Your task to perform on an android device: turn on airplane mode Image 0: 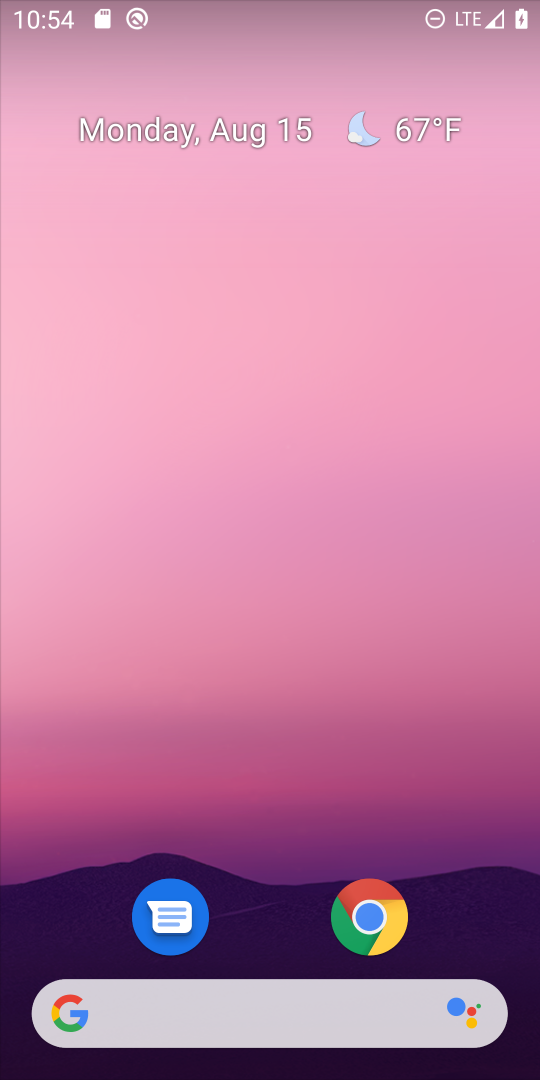
Step 0: drag from (305, 770) to (396, 24)
Your task to perform on an android device: turn on airplane mode Image 1: 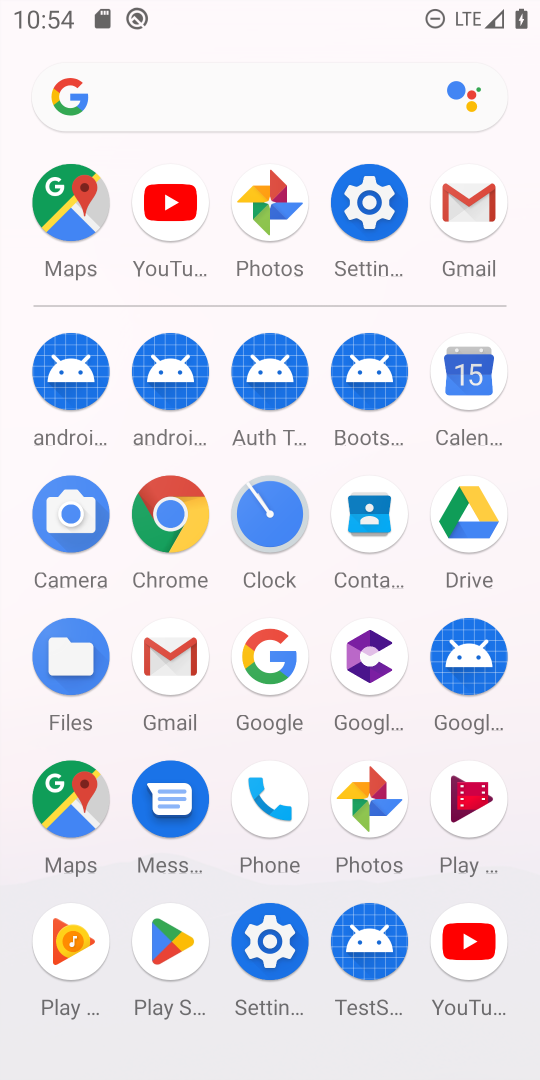
Step 1: click (372, 205)
Your task to perform on an android device: turn on airplane mode Image 2: 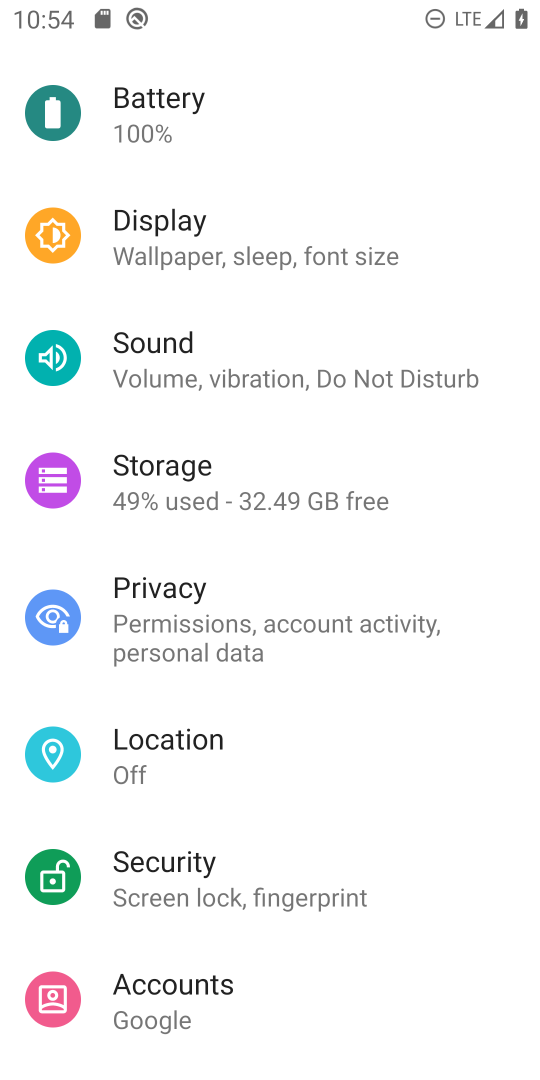
Step 2: drag from (380, 252) to (336, 812)
Your task to perform on an android device: turn on airplane mode Image 3: 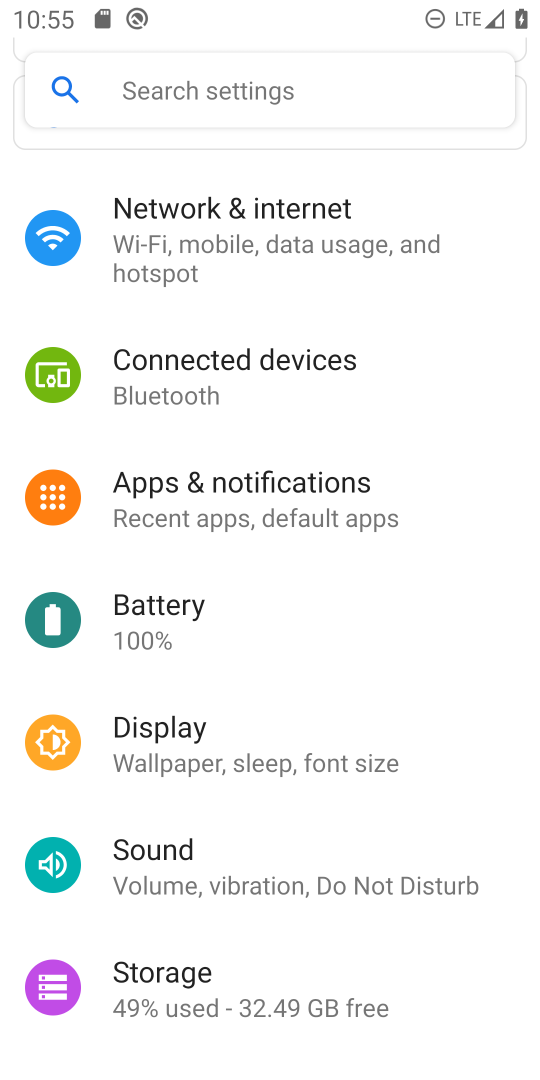
Step 3: click (312, 237)
Your task to perform on an android device: turn on airplane mode Image 4: 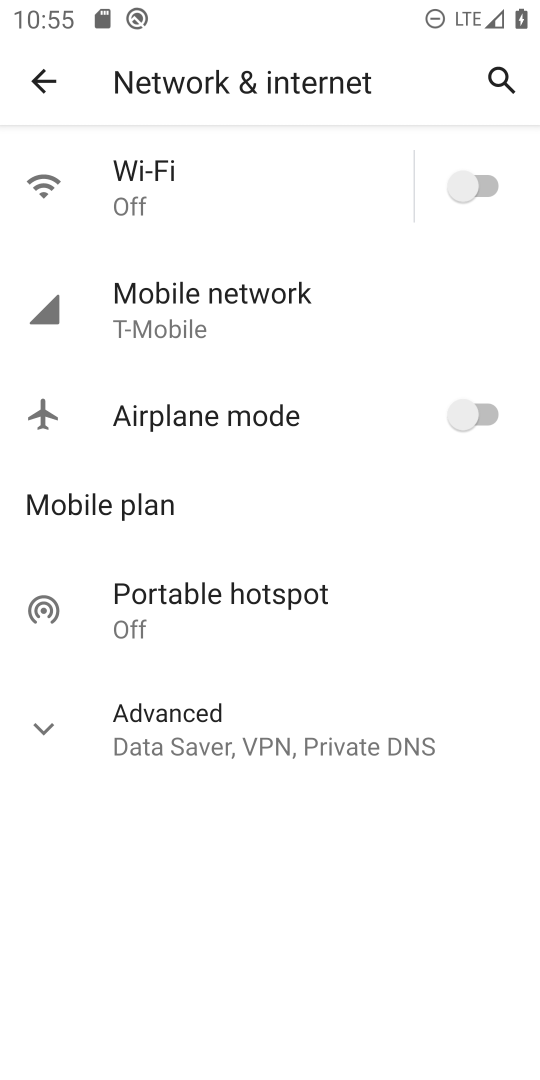
Step 4: click (482, 405)
Your task to perform on an android device: turn on airplane mode Image 5: 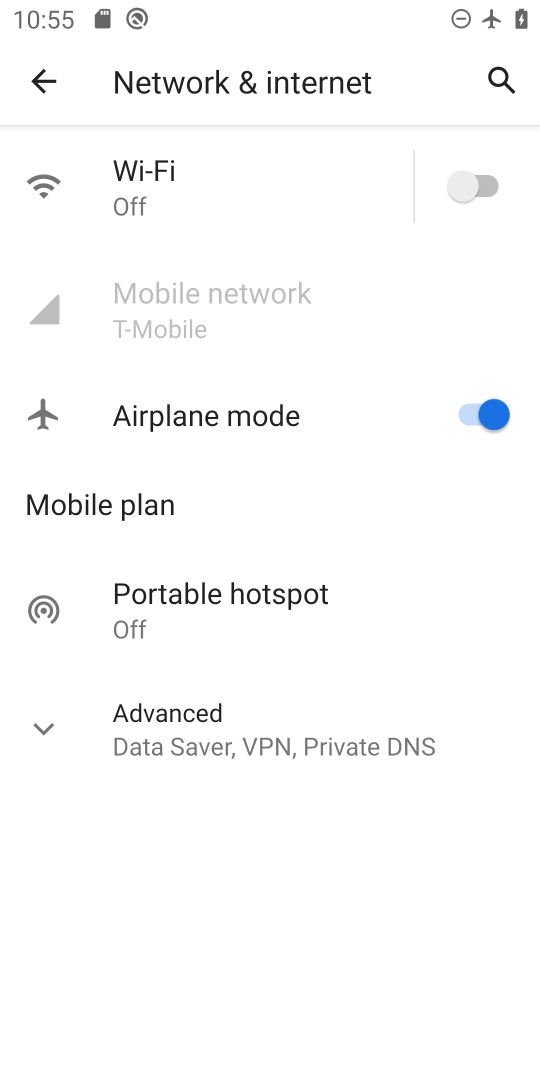
Step 5: task complete